Your task to perform on an android device: turn off translation in the chrome app Image 0: 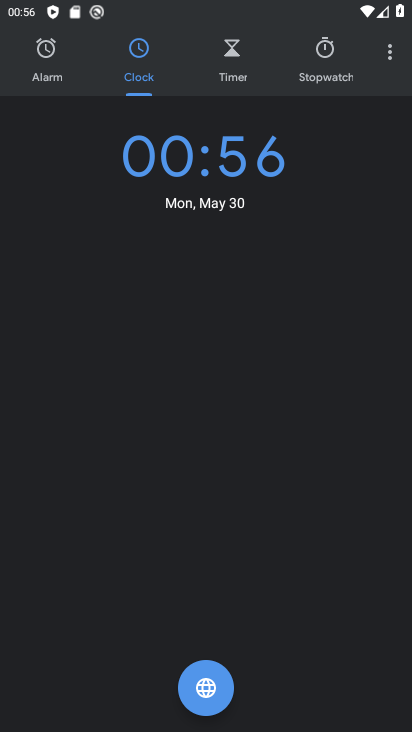
Step 0: press home button
Your task to perform on an android device: turn off translation in the chrome app Image 1: 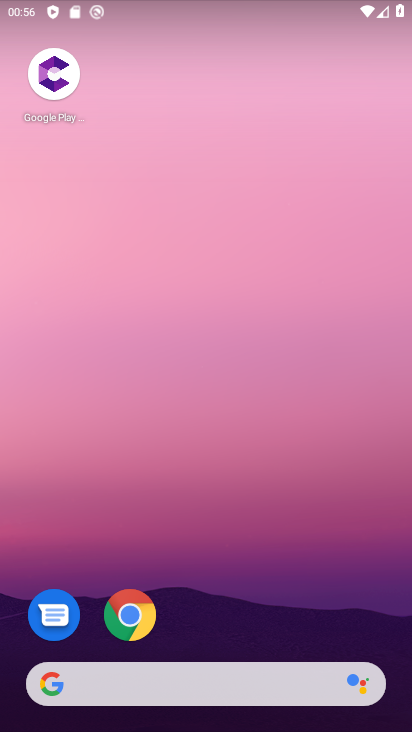
Step 1: click (145, 625)
Your task to perform on an android device: turn off translation in the chrome app Image 2: 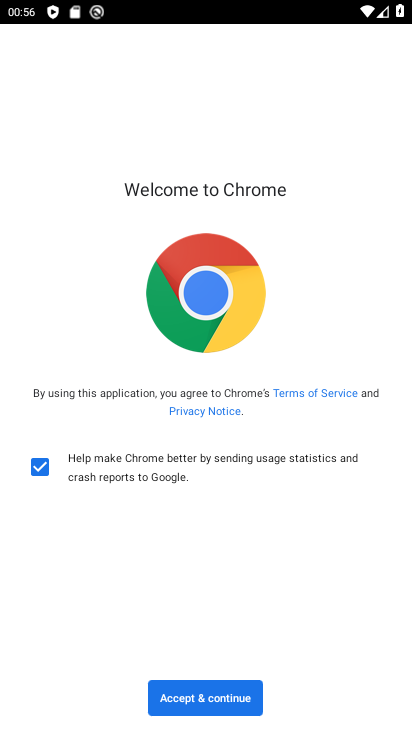
Step 2: click (197, 696)
Your task to perform on an android device: turn off translation in the chrome app Image 3: 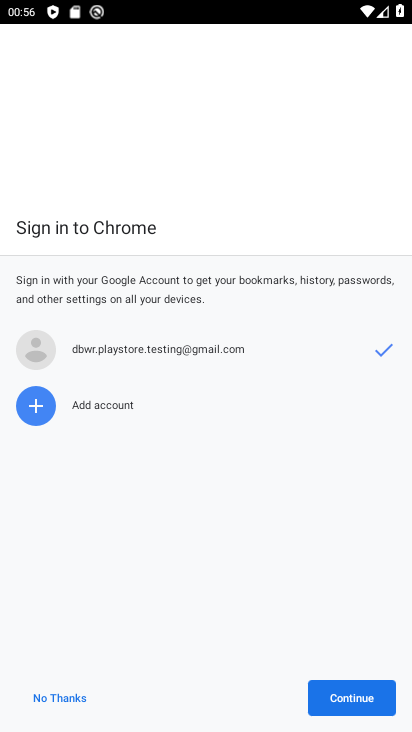
Step 3: click (347, 697)
Your task to perform on an android device: turn off translation in the chrome app Image 4: 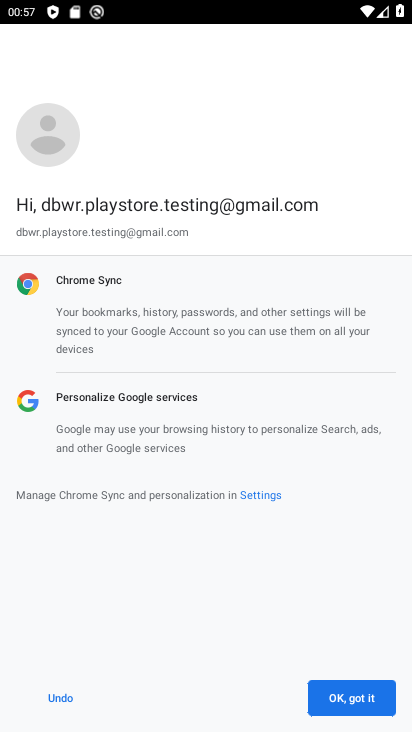
Step 4: click (345, 691)
Your task to perform on an android device: turn off translation in the chrome app Image 5: 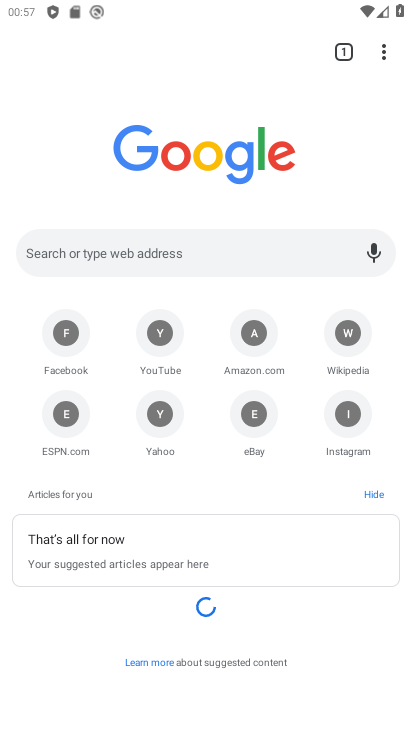
Step 5: click (385, 52)
Your task to perform on an android device: turn off translation in the chrome app Image 6: 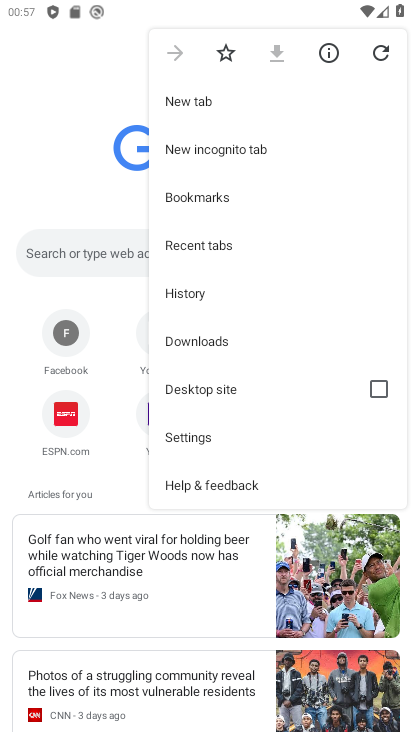
Step 6: click (199, 446)
Your task to perform on an android device: turn off translation in the chrome app Image 7: 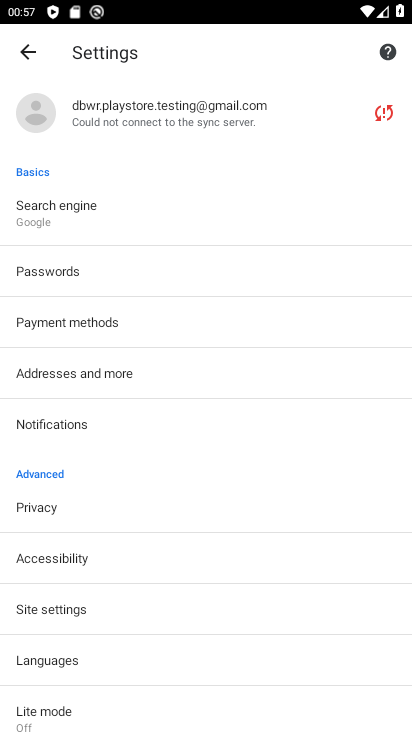
Step 7: drag from (58, 678) to (24, 286)
Your task to perform on an android device: turn off translation in the chrome app Image 8: 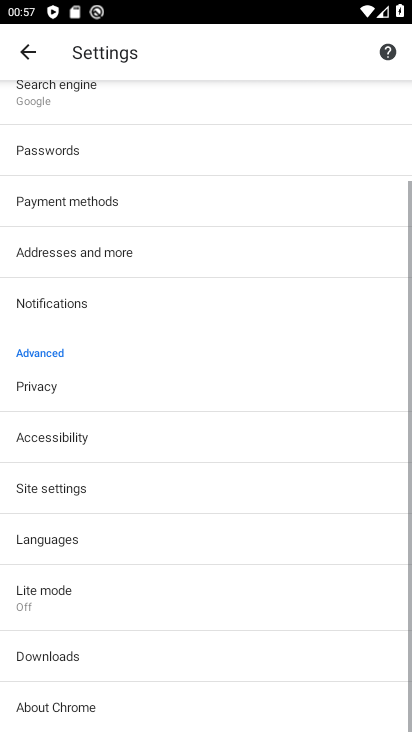
Step 8: click (48, 545)
Your task to perform on an android device: turn off translation in the chrome app Image 9: 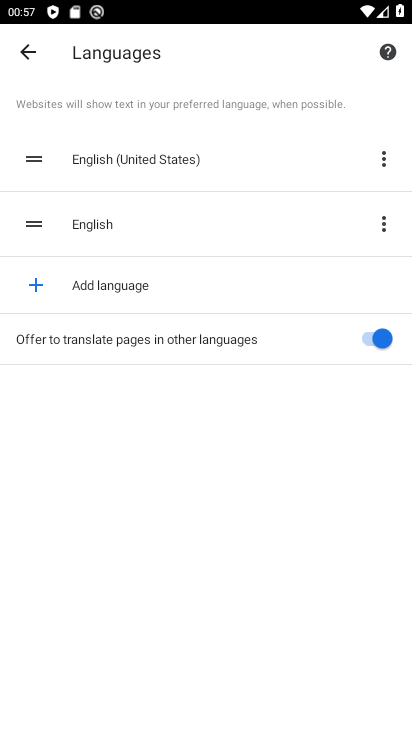
Step 9: click (364, 343)
Your task to perform on an android device: turn off translation in the chrome app Image 10: 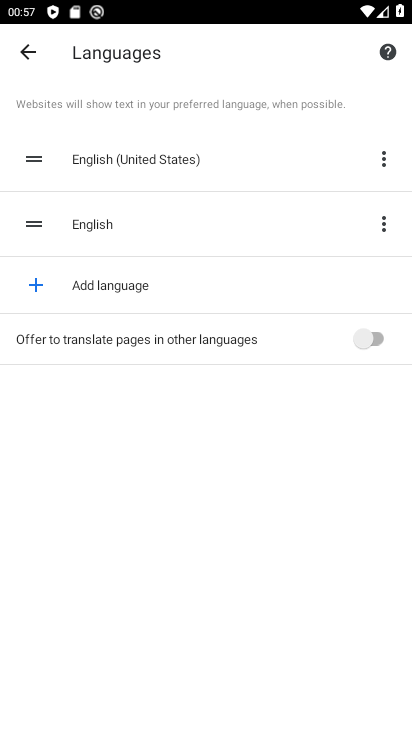
Step 10: task complete